Your task to perform on an android device: open a bookmark in the chrome app Image 0: 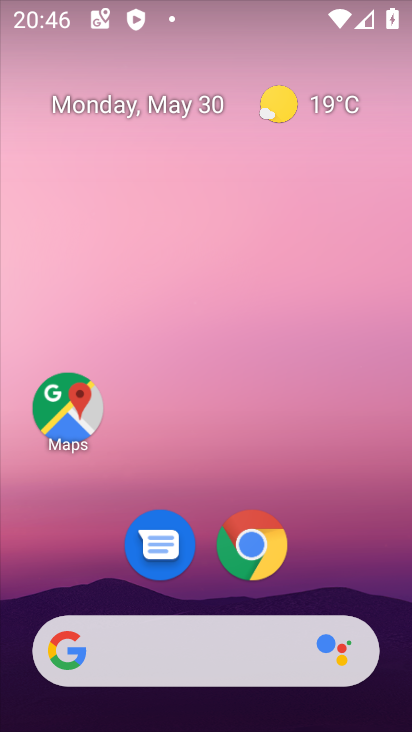
Step 0: click (250, 540)
Your task to perform on an android device: open a bookmark in the chrome app Image 1: 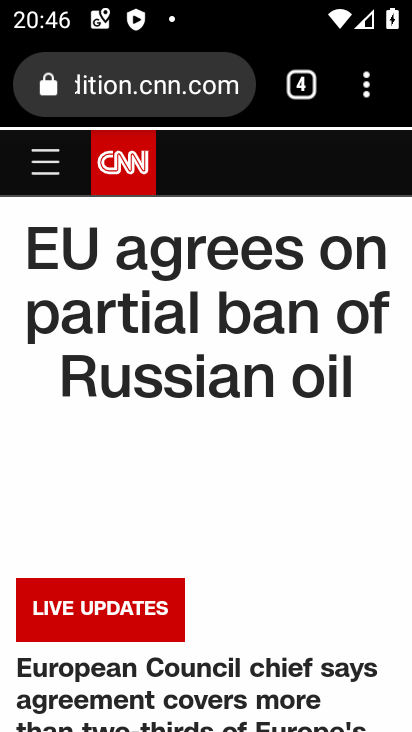
Step 1: click (376, 82)
Your task to perform on an android device: open a bookmark in the chrome app Image 2: 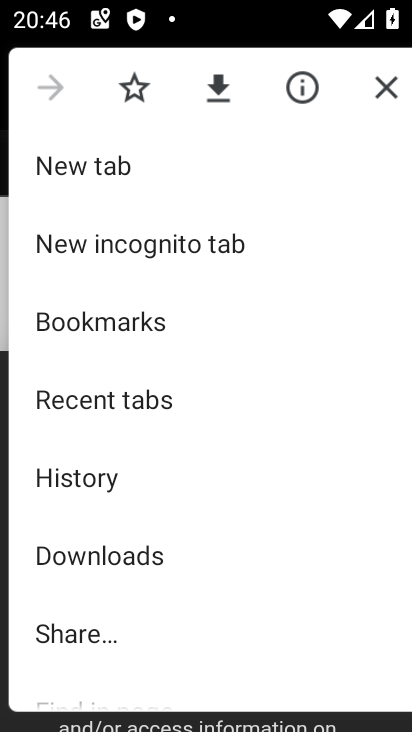
Step 2: drag from (179, 588) to (200, 277)
Your task to perform on an android device: open a bookmark in the chrome app Image 3: 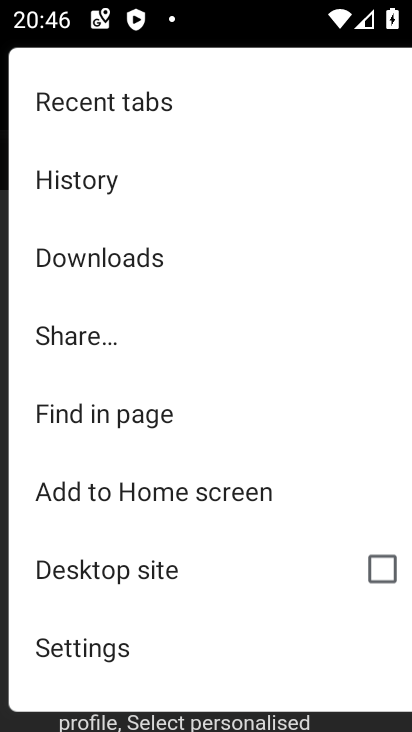
Step 3: drag from (227, 238) to (174, 606)
Your task to perform on an android device: open a bookmark in the chrome app Image 4: 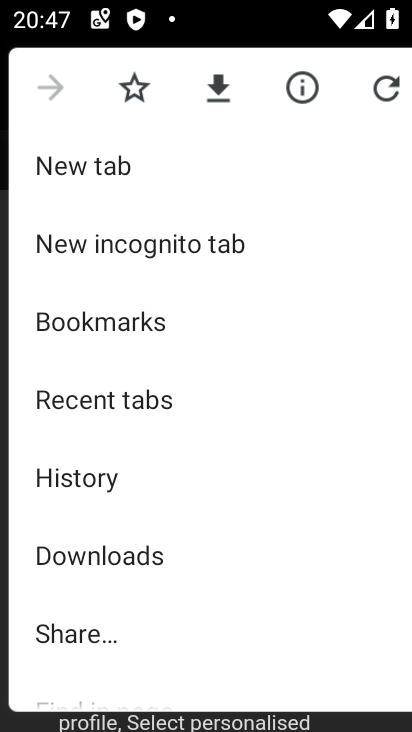
Step 4: click (133, 327)
Your task to perform on an android device: open a bookmark in the chrome app Image 5: 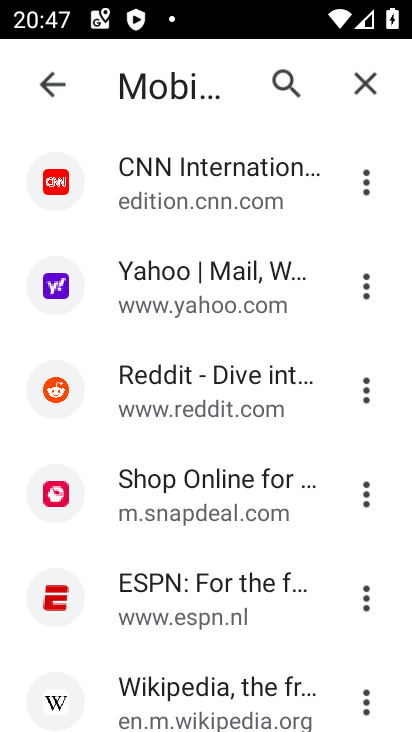
Step 5: click (170, 499)
Your task to perform on an android device: open a bookmark in the chrome app Image 6: 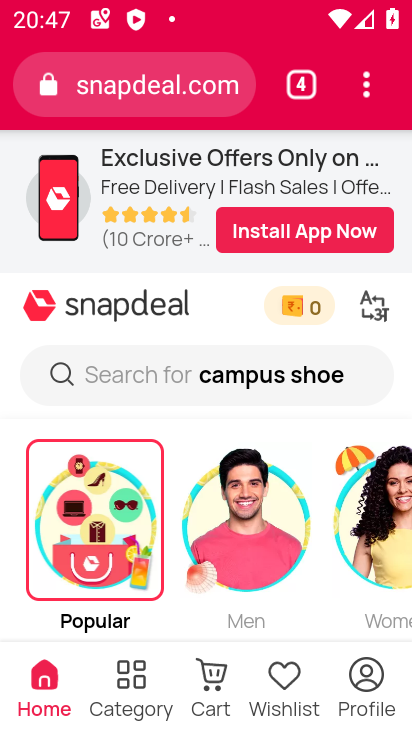
Step 6: task complete